Your task to perform on an android device: Play the last video I watched on Youtube Image 0: 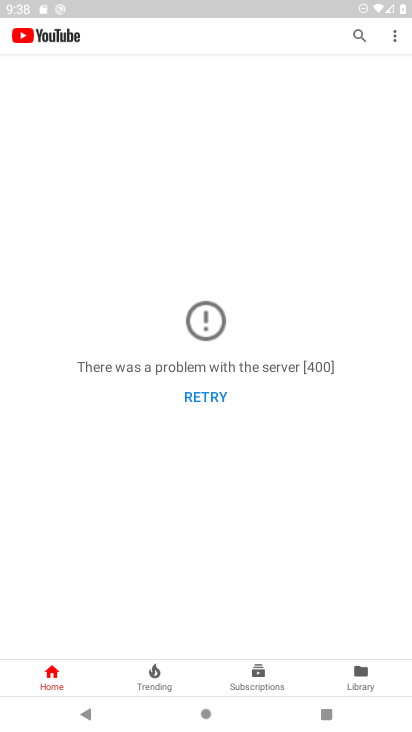
Step 0: click (359, 677)
Your task to perform on an android device: Play the last video I watched on Youtube Image 1: 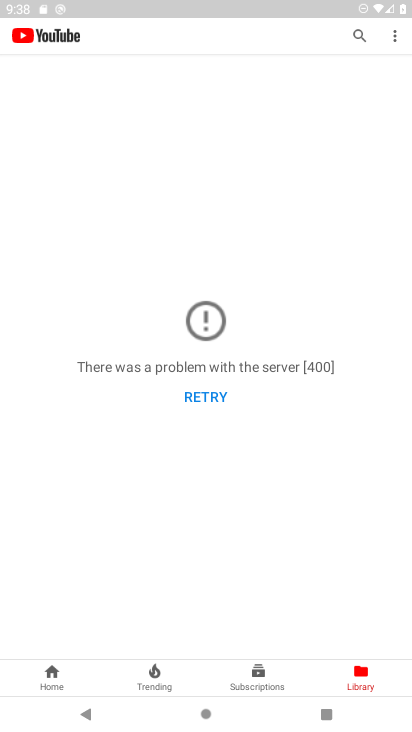
Step 1: task complete